Your task to perform on an android device: Go to sound settings Image 0: 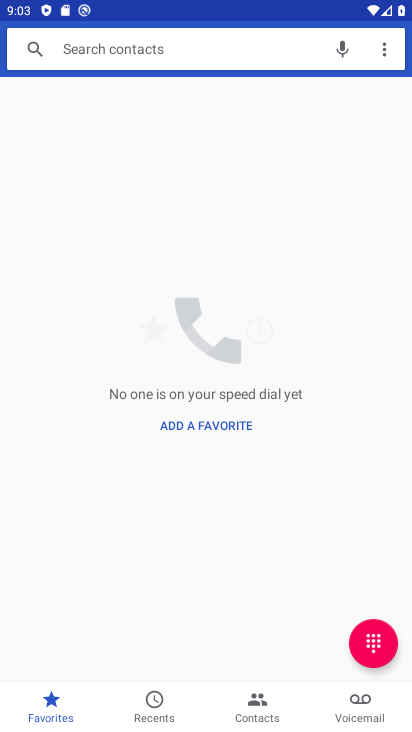
Step 0: press home button
Your task to perform on an android device: Go to sound settings Image 1: 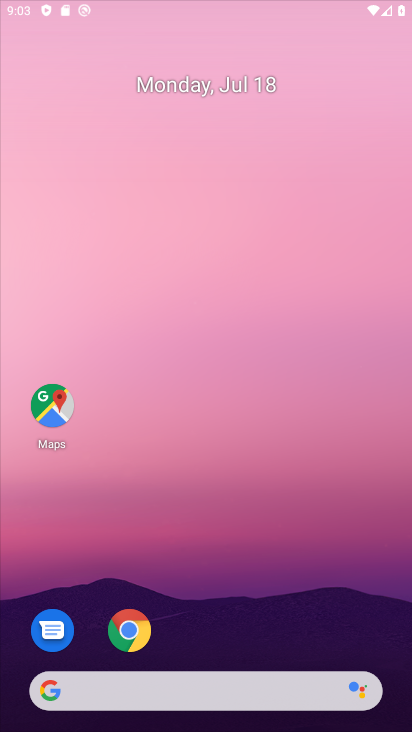
Step 1: drag from (387, 688) to (210, 22)
Your task to perform on an android device: Go to sound settings Image 2: 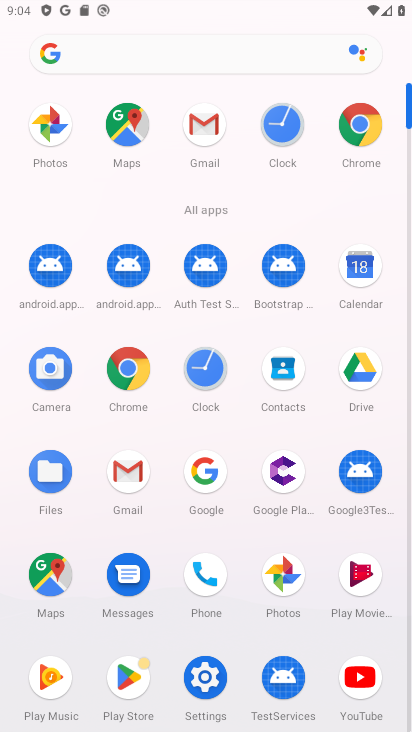
Step 2: click (193, 688)
Your task to perform on an android device: Go to sound settings Image 3: 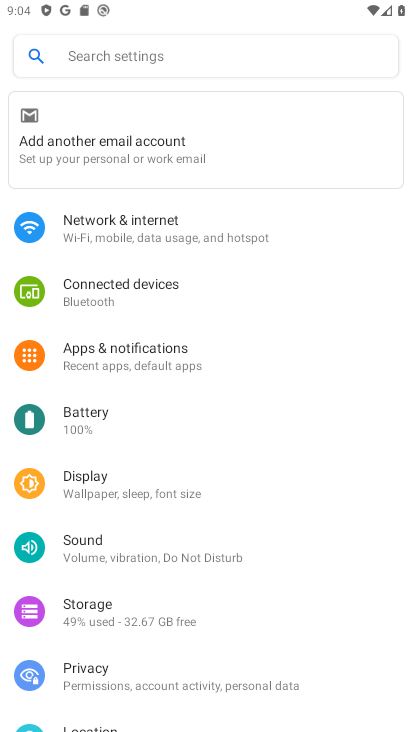
Step 3: click (78, 530)
Your task to perform on an android device: Go to sound settings Image 4: 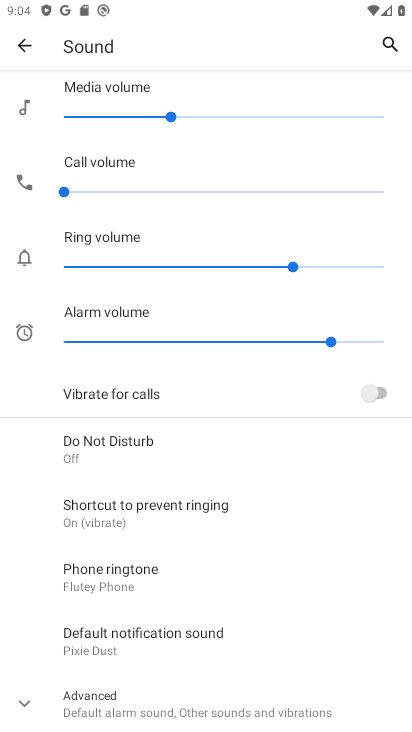
Step 4: task complete